Your task to perform on an android device: Go to location settings Image 0: 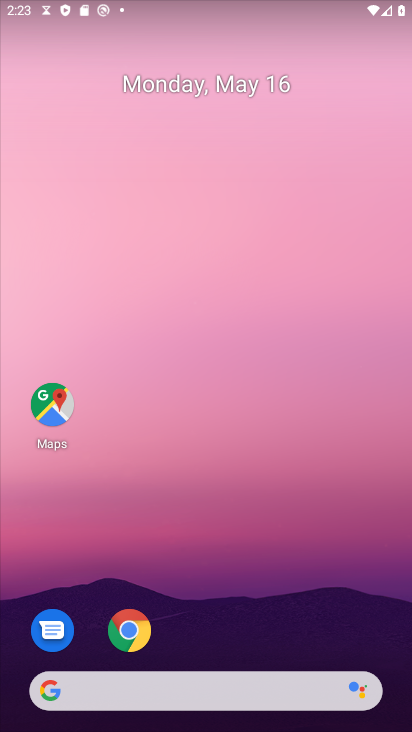
Step 0: drag from (267, 279) to (284, 131)
Your task to perform on an android device: Go to location settings Image 1: 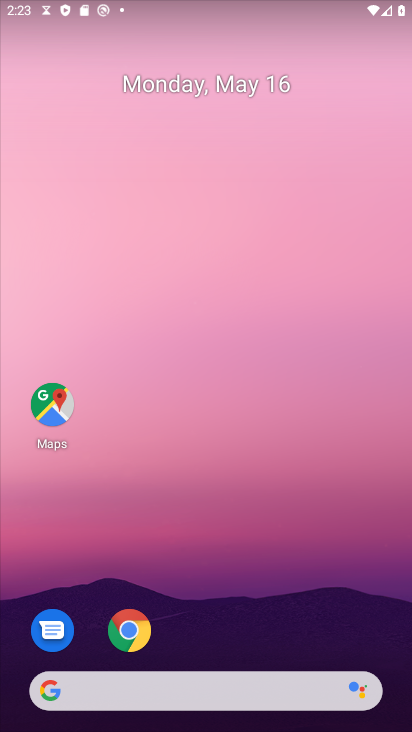
Step 1: drag from (211, 655) to (211, 188)
Your task to perform on an android device: Go to location settings Image 2: 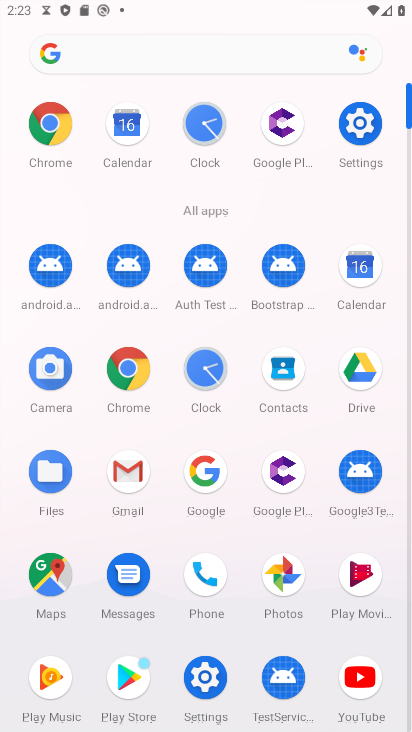
Step 2: click (211, 96)
Your task to perform on an android device: Go to location settings Image 3: 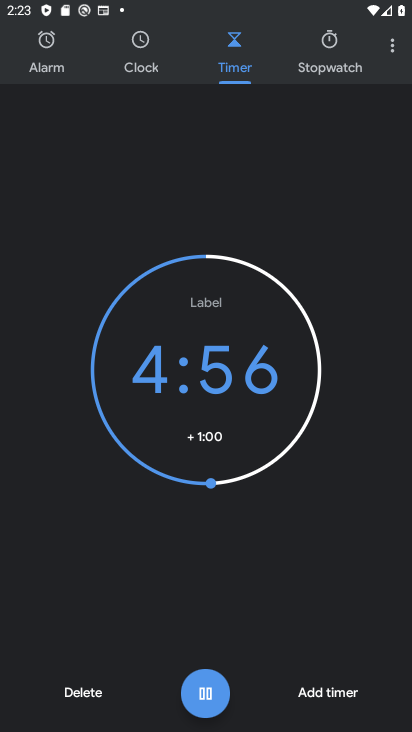
Step 3: click (392, 42)
Your task to perform on an android device: Go to location settings Image 4: 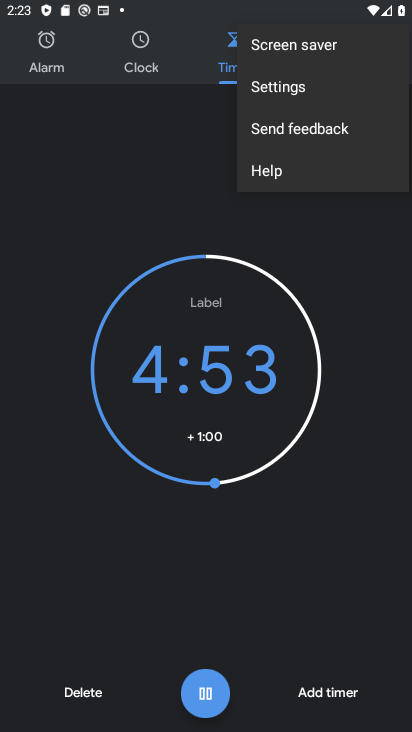
Step 4: click (313, 81)
Your task to perform on an android device: Go to location settings Image 5: 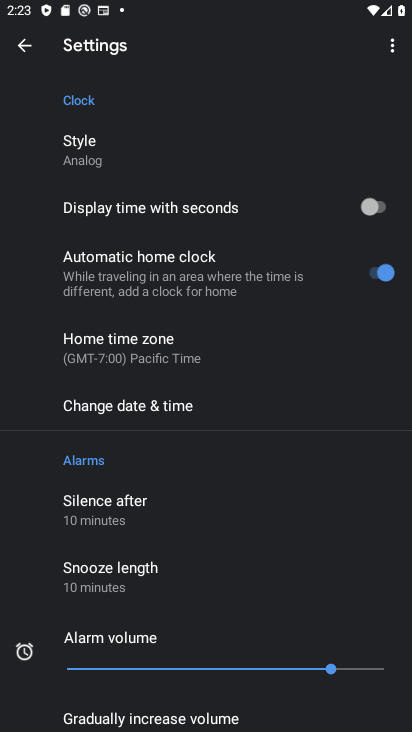
Step 5: drag from (215, 639) to (209, 365)
Your task to perform on an android device: Go to location settings Image 6: 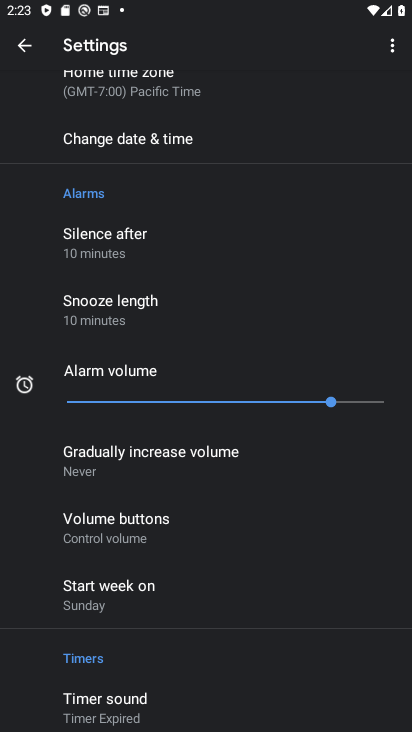
Step 6: press home button
Your task to perform on an android device: Go to location settings Image 7: 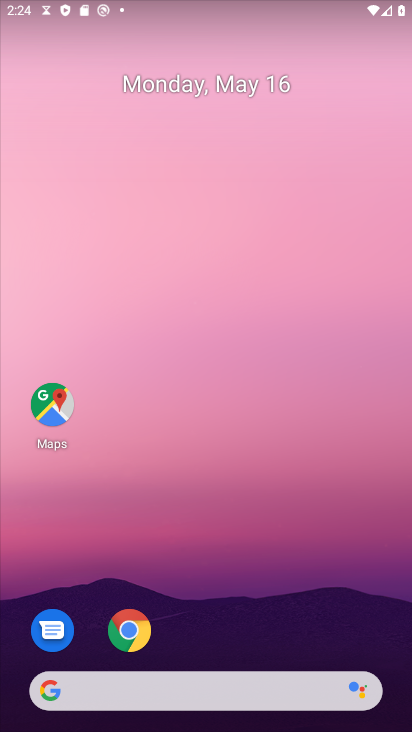
Step 7: drag from (198, 650) to (223, 63)
Your task to perform on an android device: Go to location settings Image 8: 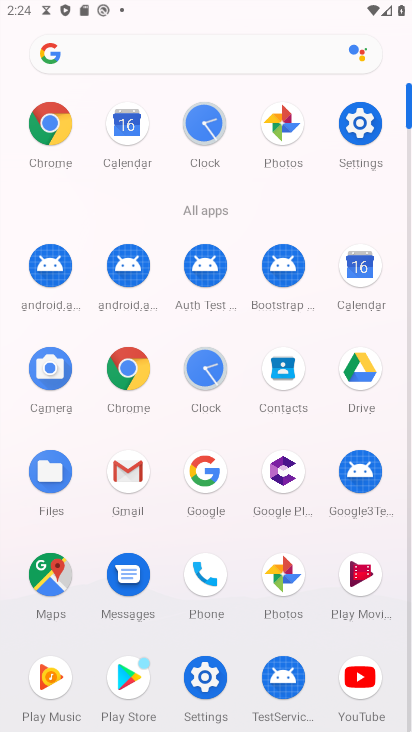
Step 8: click (355, 117)
Your task to perform on an android device: Go to location settings Image 9: 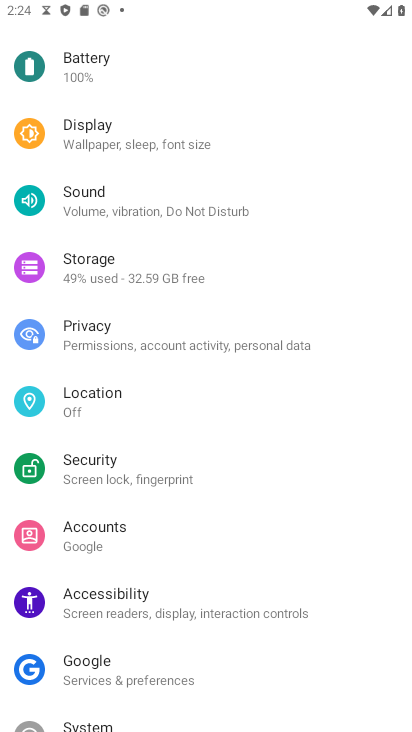
Step 9: click (109, 400)
Your task to perform on an android device: Go to location settings Image 10: 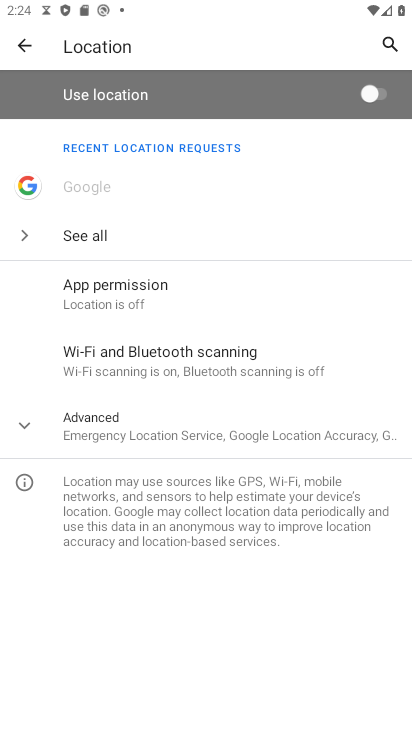
Step 10: click (22, 420)
Your task to perform on an android device: Go to location settings Image 11: 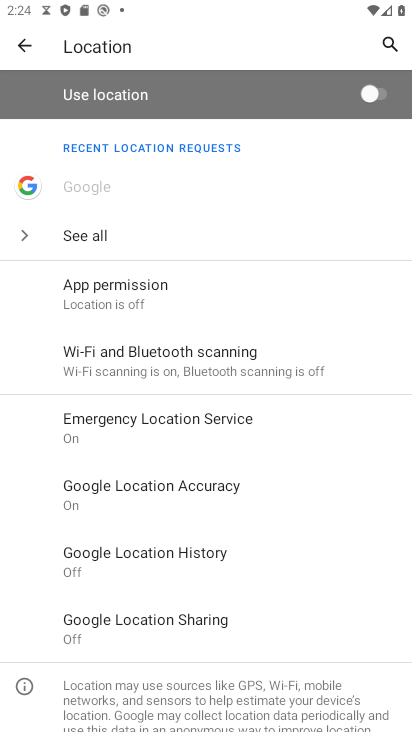
Step 11: task complete